Your task to perform on an android device: open a bookmark in the chrome app Image 0: 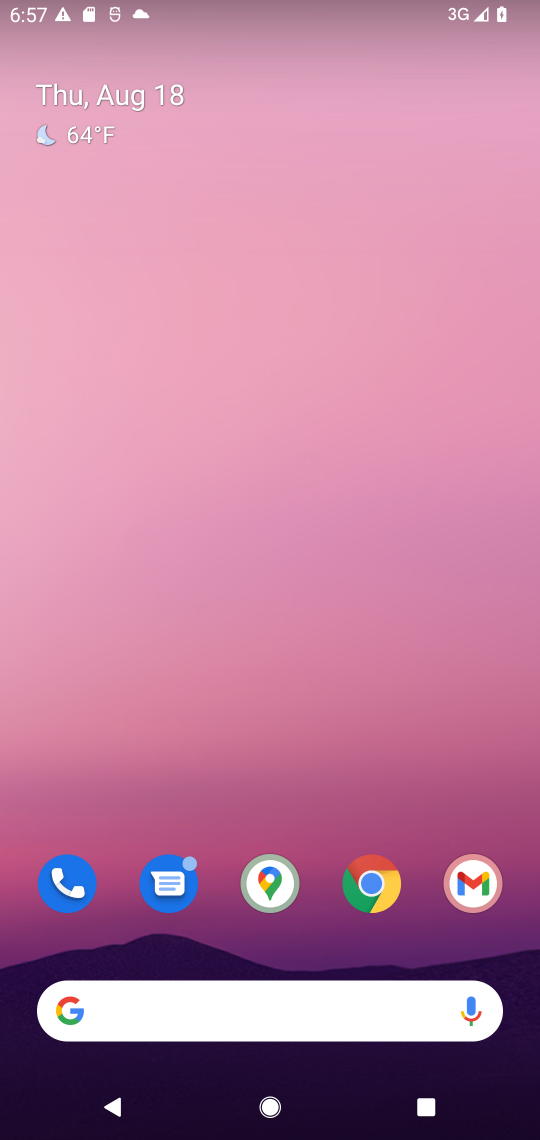
Step 0: click (388, 883)
Your task to perform on an android device: open a bookmark in the chrome app Image 1: 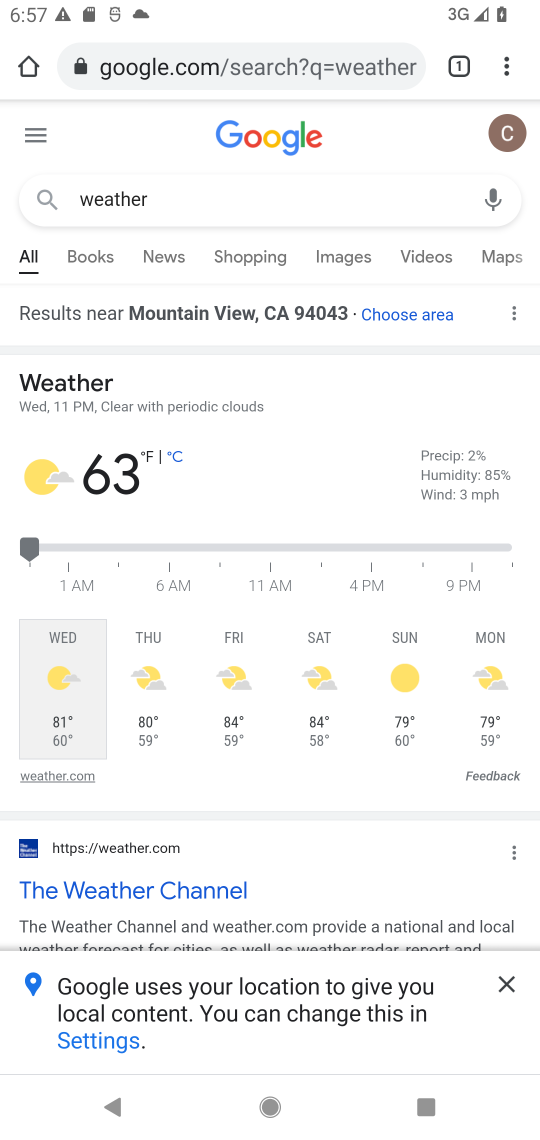
Step 1: click (504, 62)
Your task to perform on an android device: open a bookmark in the chrome app Image 2: 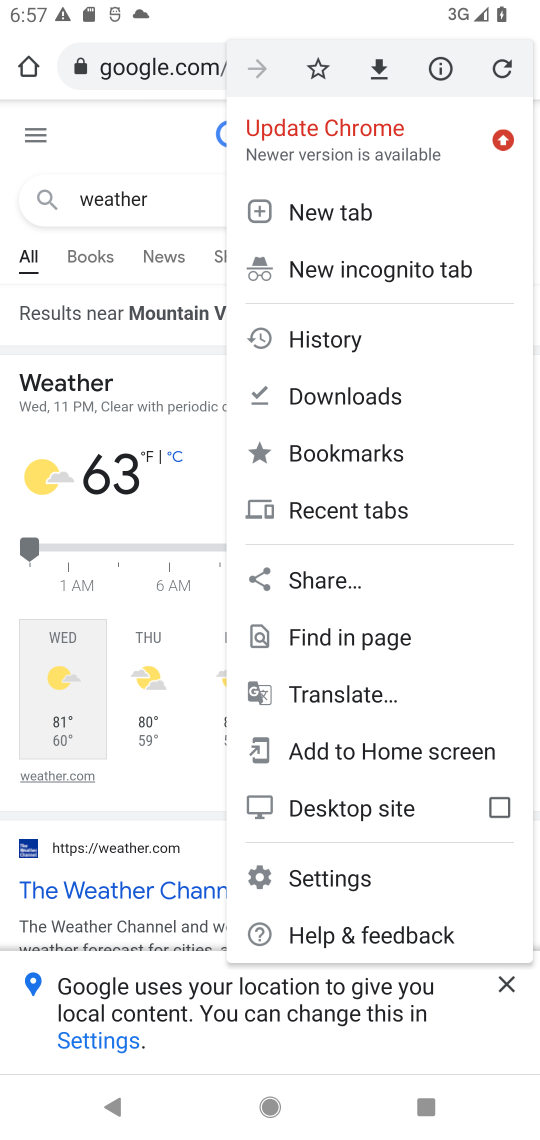
Step 2: click (335, 441)
Your task to perform on an android device: open a bookmark in the chrome app Image 3: 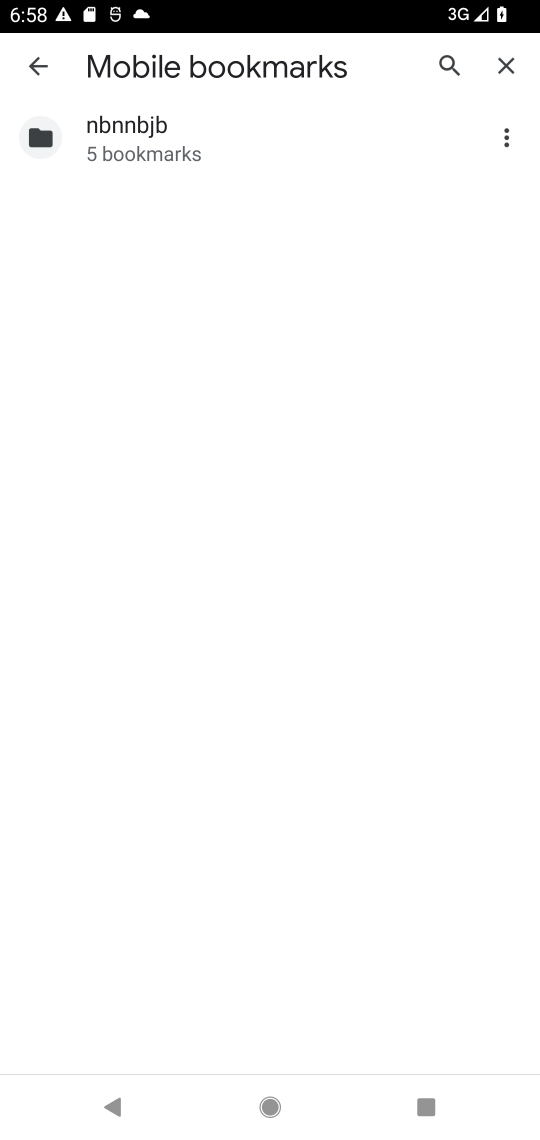
Step 3: task complete